Your task to perform on an android device: Open the calendar app, open the side menu, and click the "Day" option Image 0: 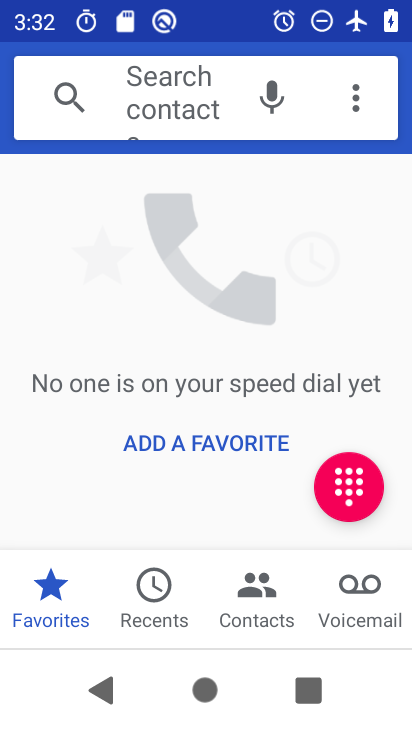
Step 0: press home button
Your task to perform on an android device: Open the calendar app, open the side menu, and click the "Day" option Image 1: 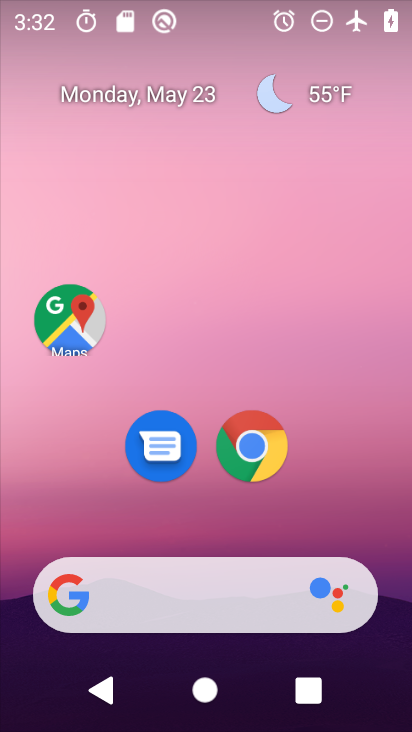
Step 1: drag from (212, 526) to (164, 161)
Your task to perform on an android device: Open the calendar app, open the side menu, and click the "Day" option Image 2: 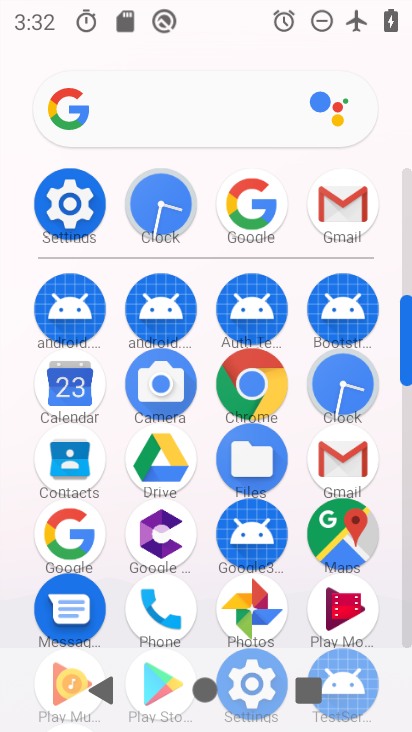
Step 2: click (90, 388)
Your task to perform on an android device: Open the calendar app, open the side menu, and click the "Day" option Image 3: 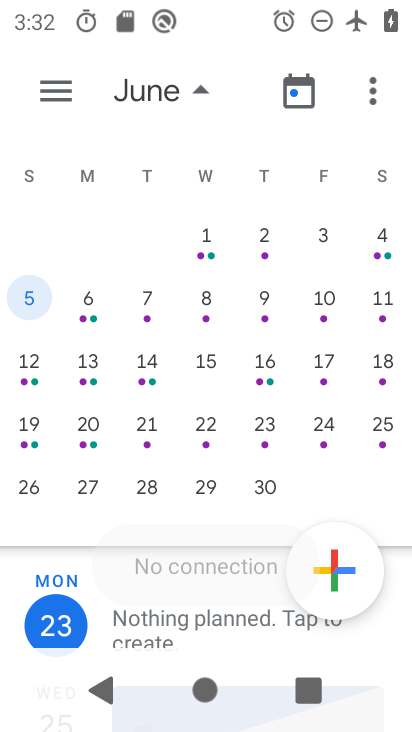
Step 3: click (41, 89)
Your task to perform on an android device: Open the calendar app, open the side menu, and click the "Day" option Image 4: 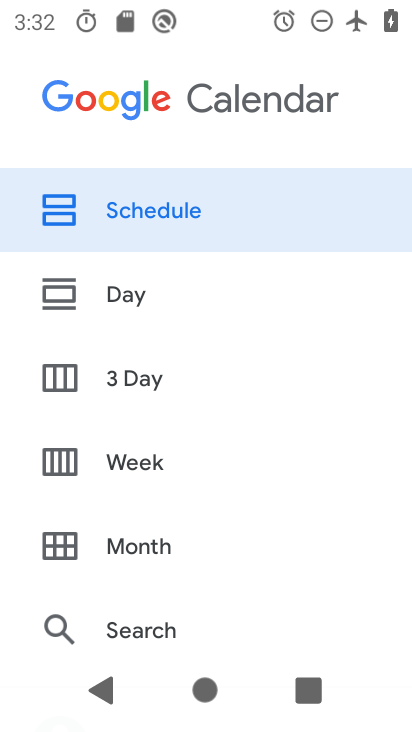
Step 4: click (142, 304)
Your task to perform on an android device: Open the calendar app, open the side menu, and click the "Day" option Image 5: 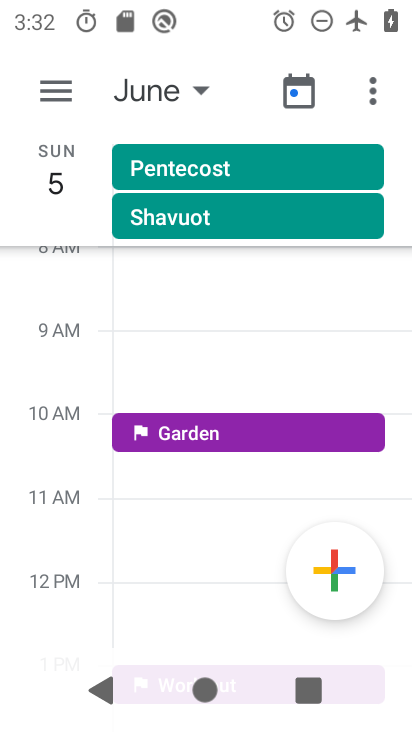
Step 5: task complete